Your task to perform on an android device: see tabs open on other devices in the chrome app Image 0: 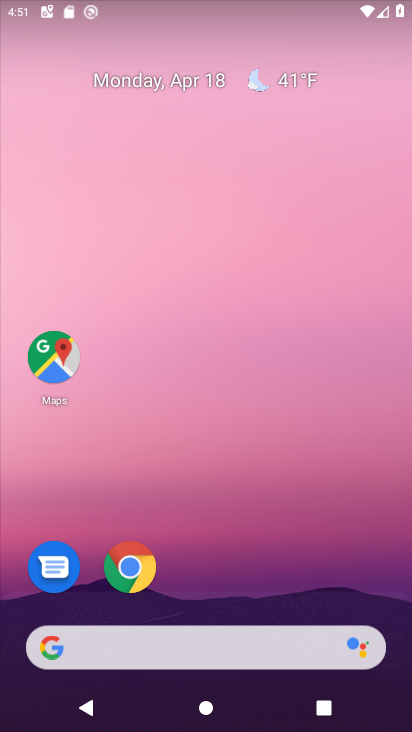
Step 0: click (128, 570)
Your task to perform on an android device: see tabs open on other devices in the chrome app Image 1: 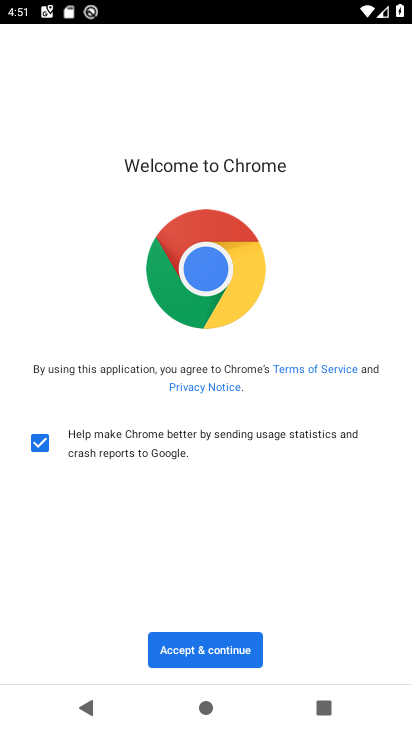
Step 1: click (246, 643)
Your task to perform on an android device: see tabs open on other devices in the chrome app Image 2: 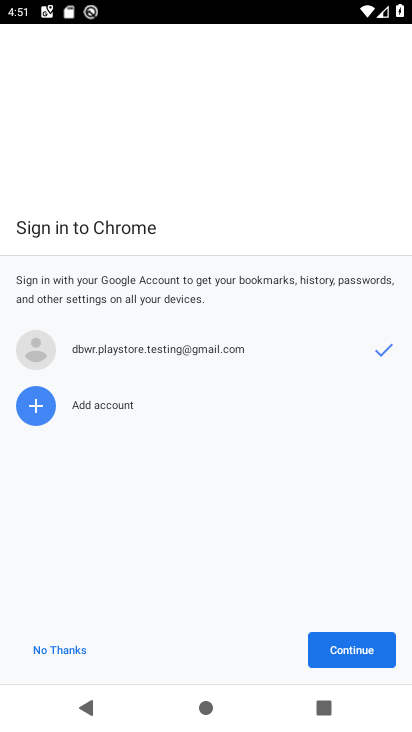
Step 2: click (350, 649)
Your task to perform on an android device: see tabs open on other devices in the chrome app Image 3: 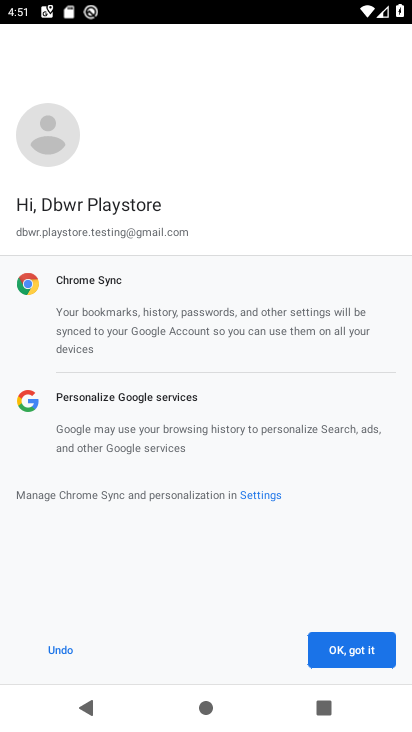
Step 3: click (367, 642)
Your task to perform on an android device: see tabs open on other devices in the chrome app Image 4: 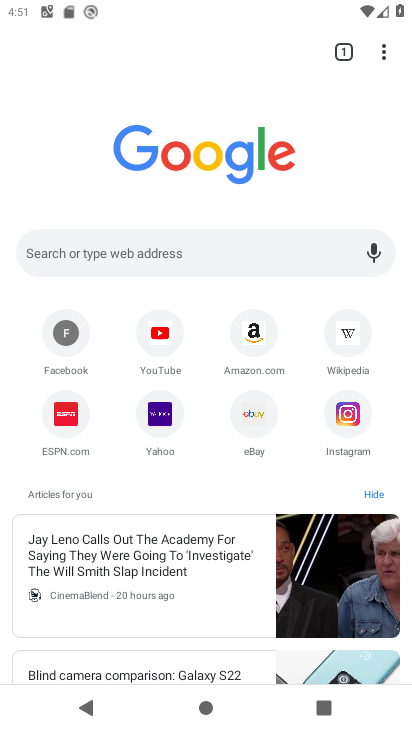
Step 4: click (386, 40)
Your task to perform on an android device: see tabs open on other devices in the chrome app Image 5: 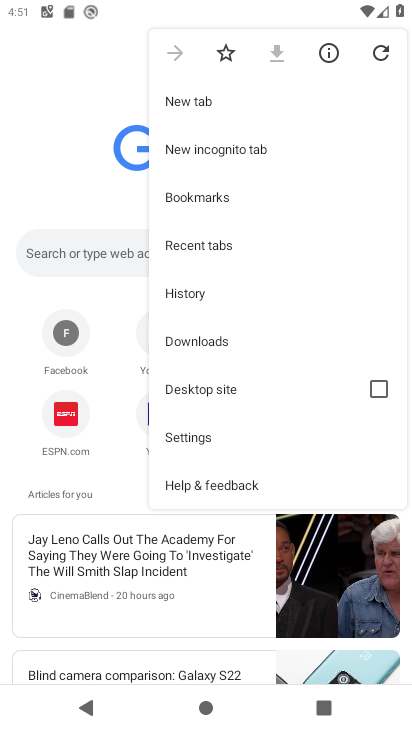
Step 5: click (218, 247)
Your task to perform on an android device: see tabs open on other devices in the chrome app Image 6: 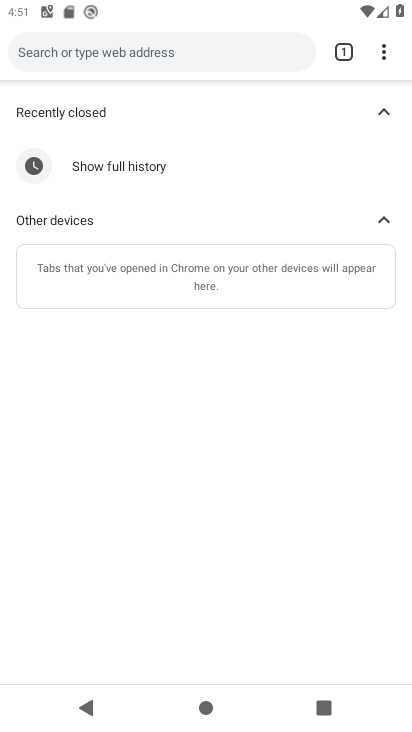
Step 6: task complete